Your task to perform on an android device: Open CNN.com Image 0: 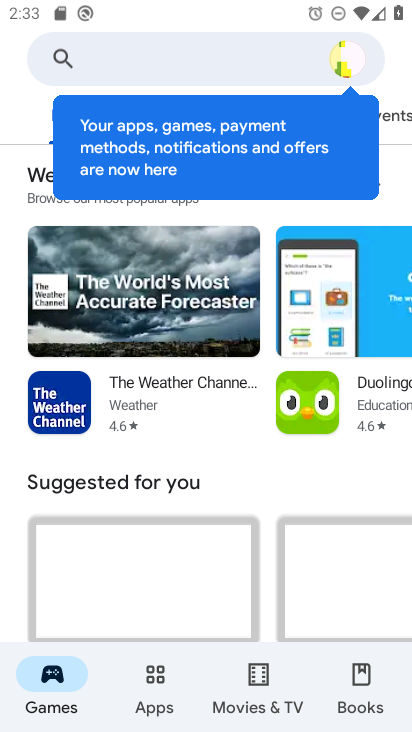
Step 0: press home button
Your task to perform on an android device: Open CNN.com Image 1: 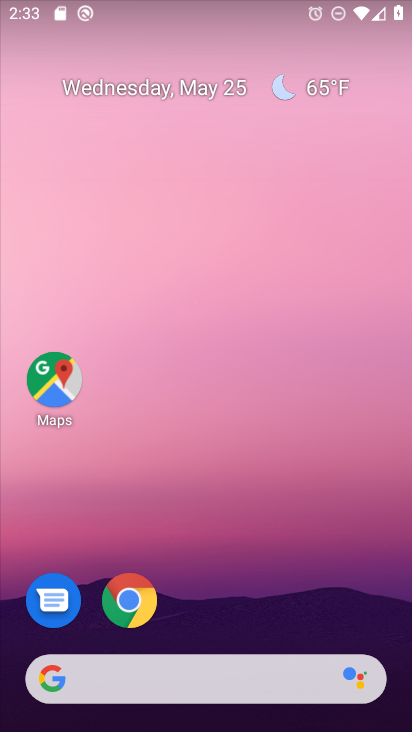
Step 1: click (127, 595)
Your task to perform on an android device: Open CNN.com Image 2: 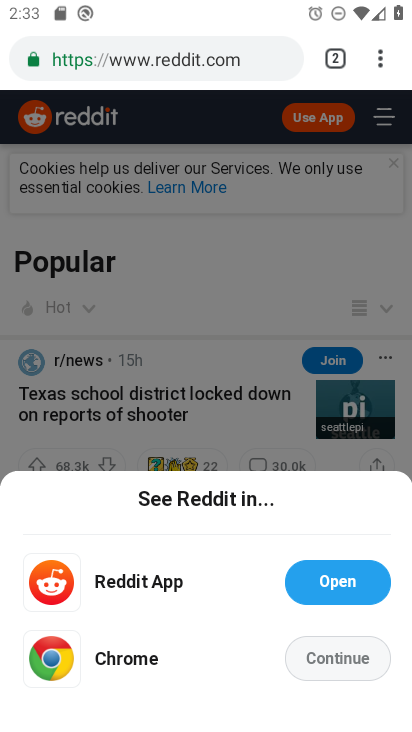
Step 2: drag from (385, 54) to (0, 107)
Your task to perform on an android device: Open CNN.com Image 3: 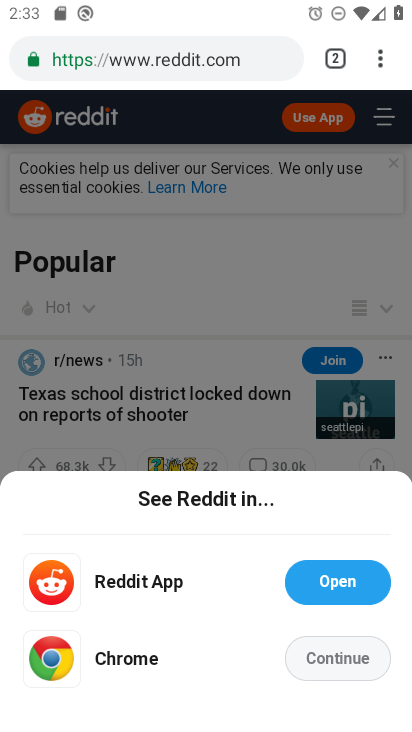
Step 3: click (179, 48)
Your task to perform on an android device: Open CNN.com Image 4: 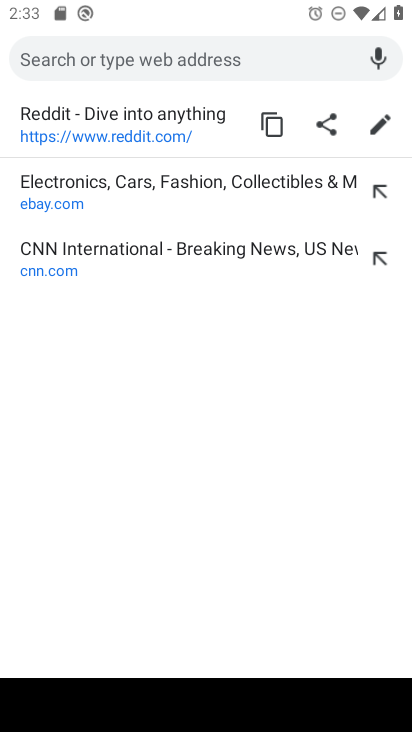
Step 4: click (68, 274)
Your task to perform on an android device: Open CNN.com Image 5: 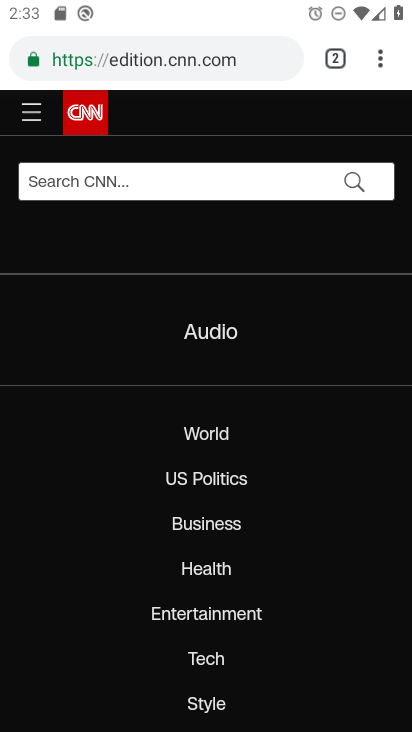
Step 5: task complete